Your task to perform on an android device: add a contact Image 0: 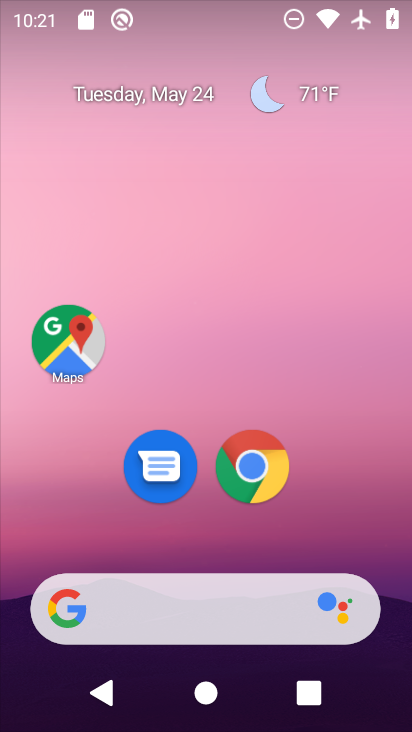
Step 0: drag from (233, 562) to (286, 75)
Your task to perform on an android device: add a contact Image 1: 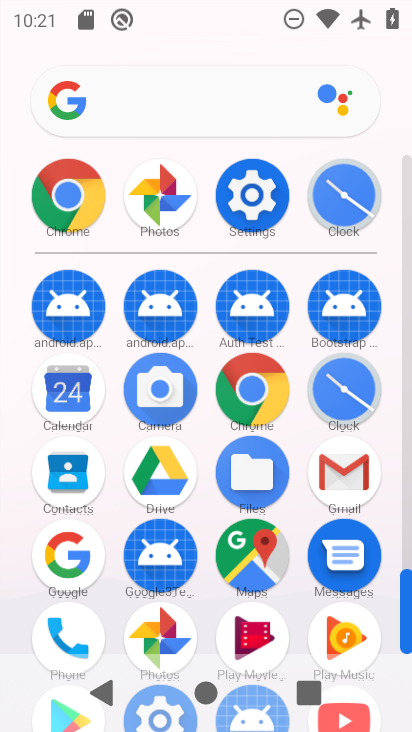
Step 1: click (69, 495)
Your task to perform on an android device: add a contact Image 2: 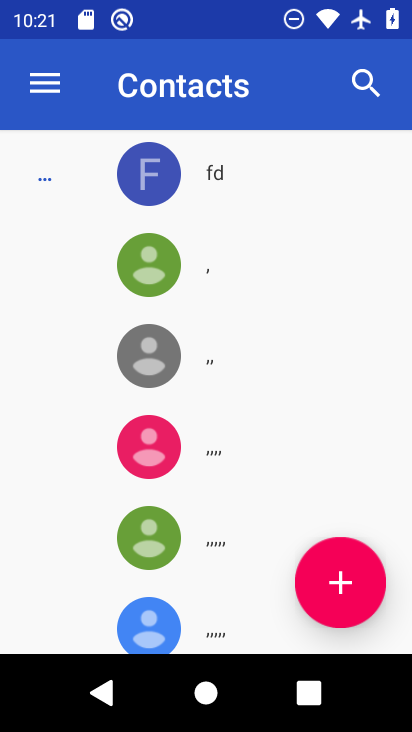
Step 2: click (335, 579)
Your task to perform on an android device: add a contact Image 3: 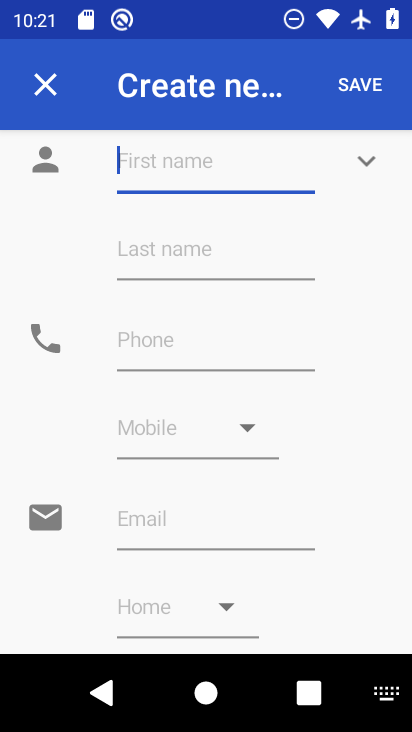
Step 3: type "apport"
Your task to perform on an android device: add a contact Image 4: 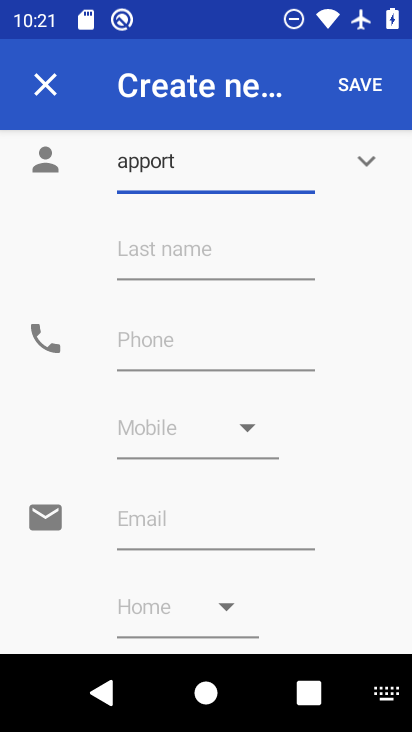
Step 4: click (374, 89)
Your task to perform on an android device: add a contact Image 5: 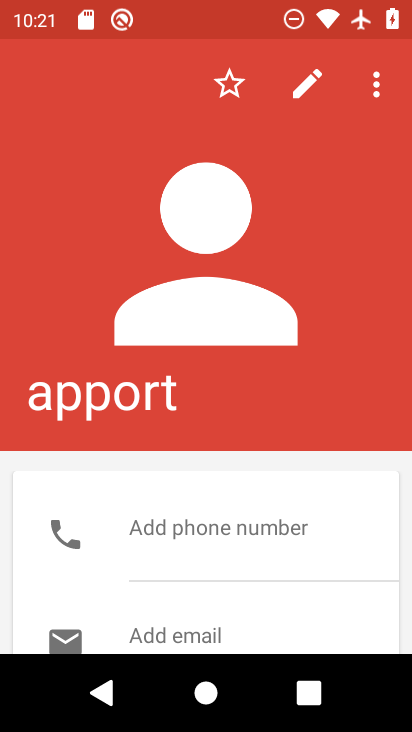
Step 5: task complete